Your task to perform on an android device: see tabs open on other devices in the chrome app Image 0: 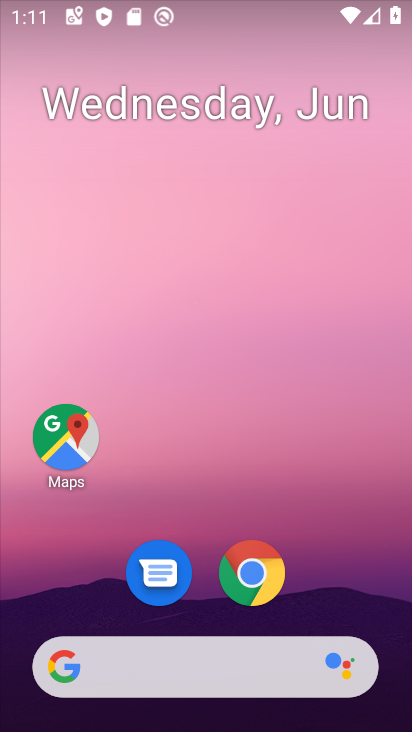
Step 0: drag from (374, 601) to (362, 138)
Your task to perform on an android device: see tabs open on other devices in the chrome app Image 1: 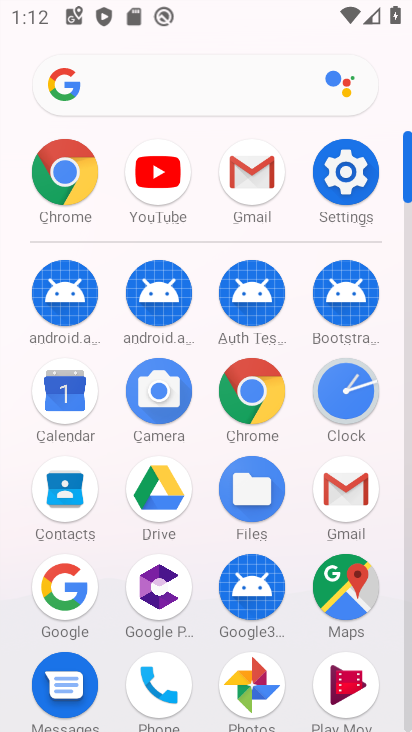
Step 1: click (237, 409)
Your task to perform on an android device: see tabs open on other devices in the chrome app Image 2: 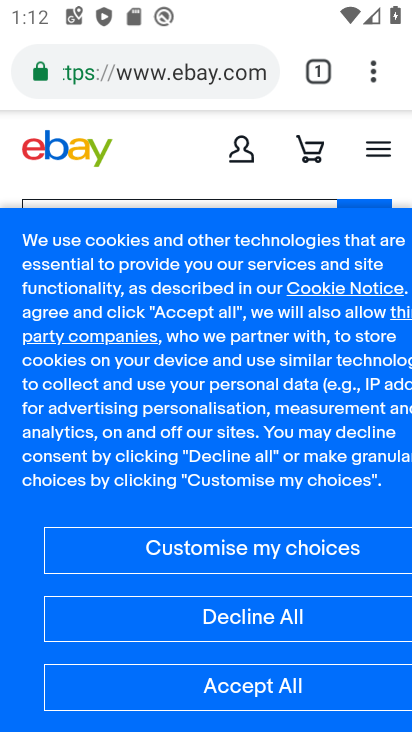
Step 2: click (306, 86)
Your task to perform on an android device: see tabs open on other devices in the chrome app Image 3: 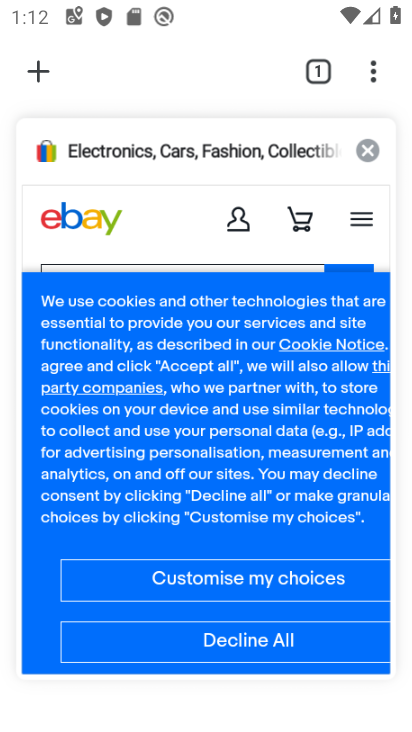
Step 3: click (36, 82)
Your task to perform on an android device: see tabs open on other devices in the chrome app Image 4: 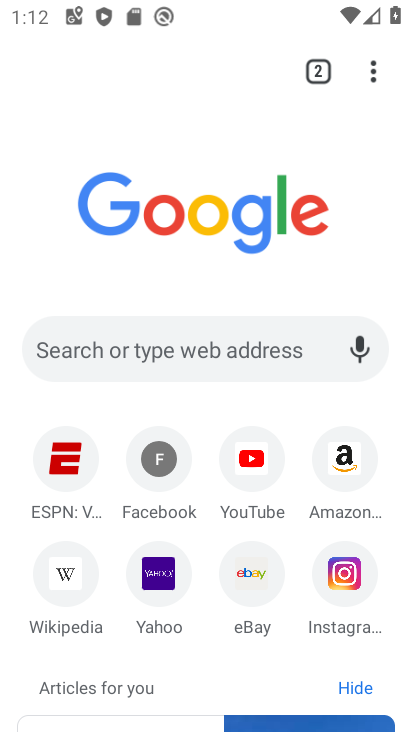
Step 4: click (307, 68)
Your task to perform on an android device: see tabs open on other devices in the chrome app Image 5: 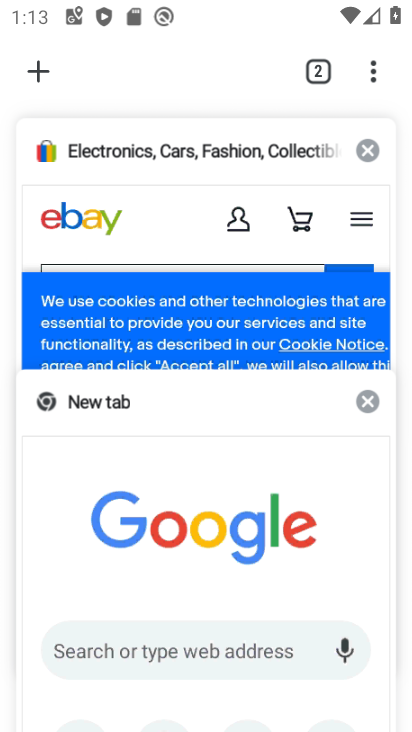
Step 5: task complete